Your task to perform on an android device: Go to calendar. Show me events next week Image 0: 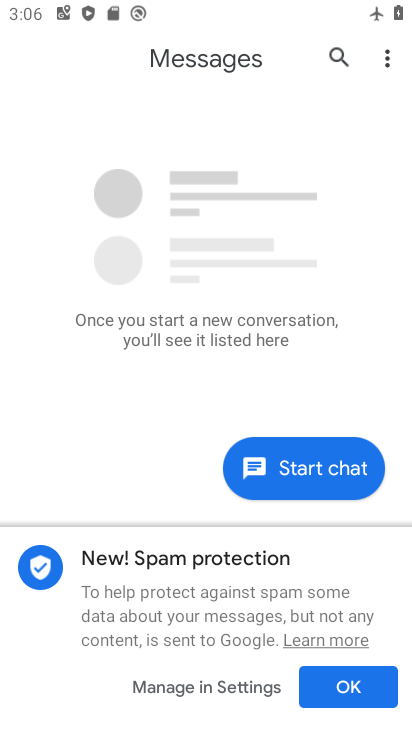
Step 0: press back button
Your task to perform on an android device: Go to calendar. Show me events next week Image 1: 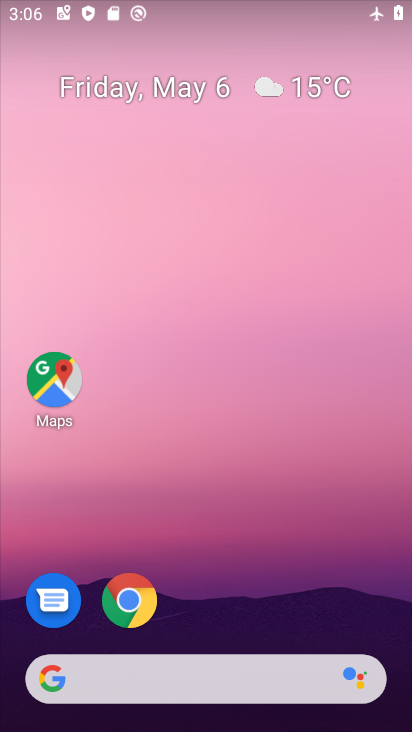
Step 1: drag from (214, 479) to (167, 4)
Your task to perform on an android device: Go to calendar. Show me events next week Image 2: 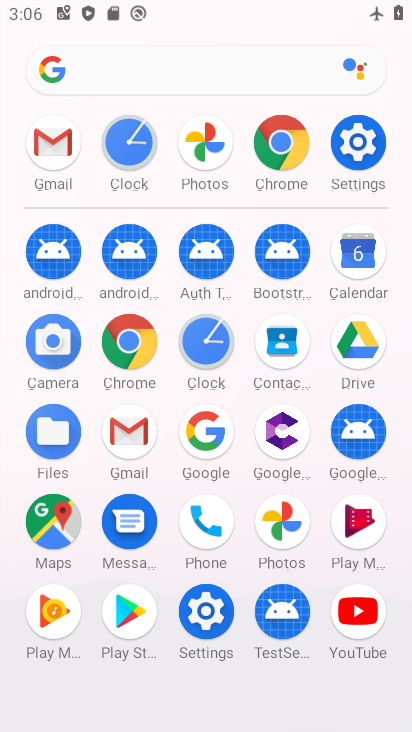
Step 2: drag from (15, 634) to (13, 377)
Your task to perform on an android device: Go to calendar. Show me events next week Image 3: 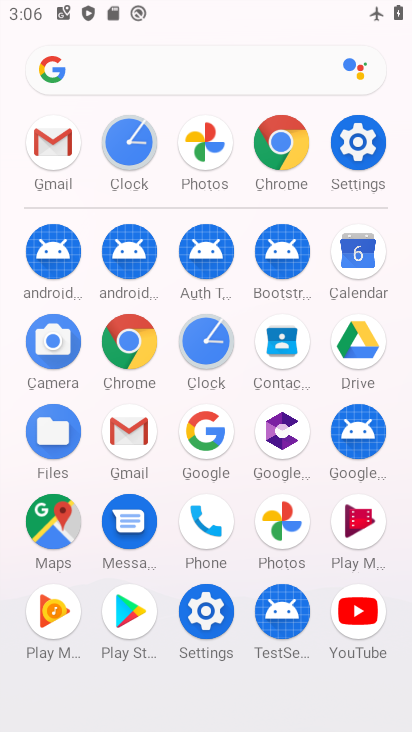
Step 3: click (359, 247)
Your task to perform on an android device: Go to calendar. Show me events next week Image 4: 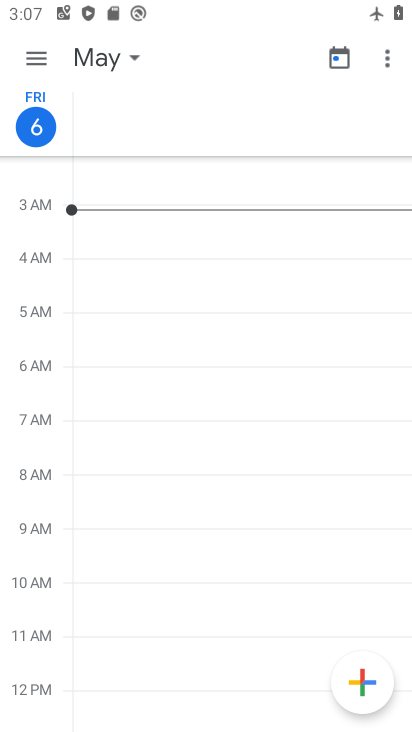
Step 4: click (41, 55)
Your task to perform on an android device: Go to calendar. Show me events next week Image 5: 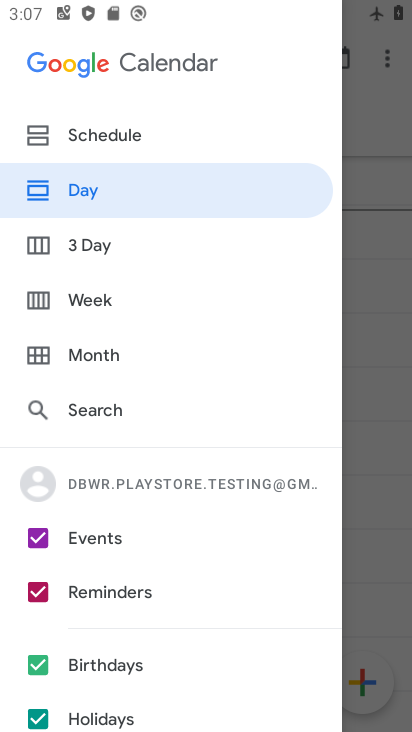
Step 5: click (91, 306)
Your task to perform on an android device: Go to calendar. Show me events next week Image 6: 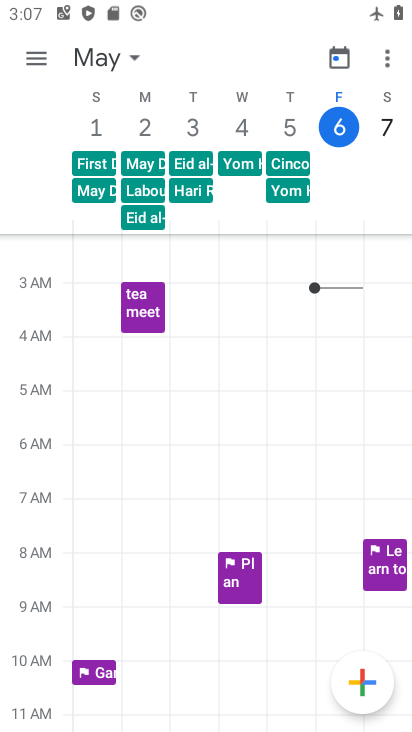
Step 6: task complete